Your task to perform on an android device: add a contact in the contacts app Image 0: 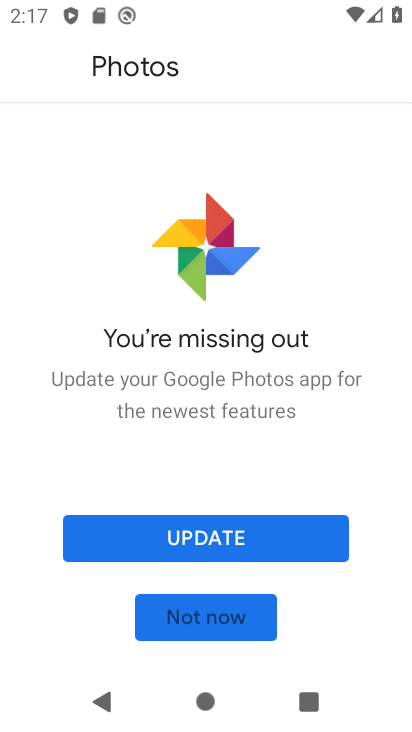
Step 0: press home button
Your task to perform on an android device: add a contact in the contacts app Image 1: 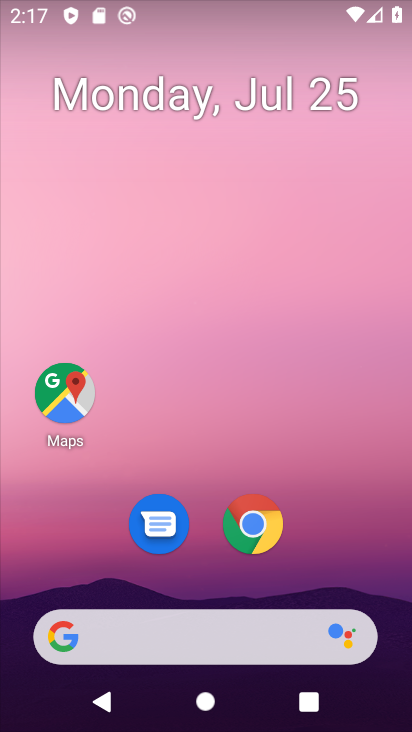
Step 1: drag from (161, 644) to (311, 64)
Your task to perform on an android device: add a contact in the contacts app Image 2: 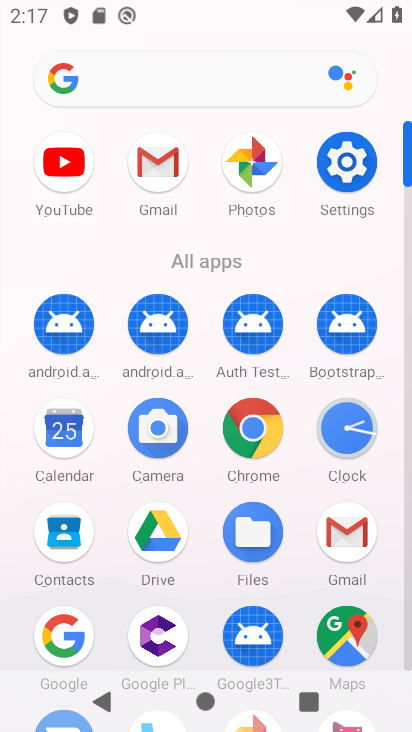
Step 2: drag from (204, 586) to (287, 351)
Your task to perform on an android device: add a contact in the contacts app Image 3: 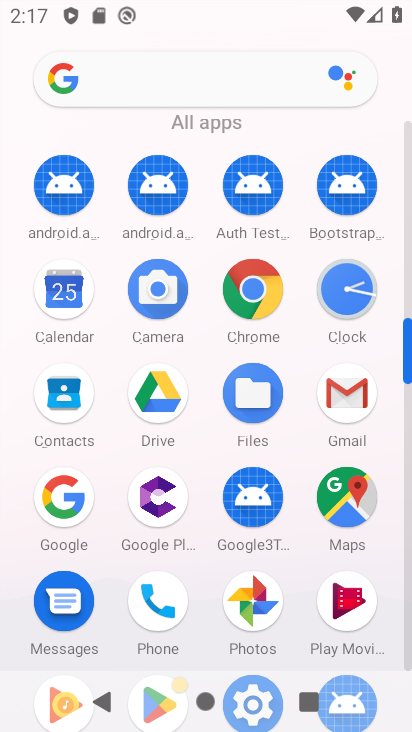
Step 3: click (61, 398)
Your task to perform on an android device: add a contact in the contacts app Image 4: 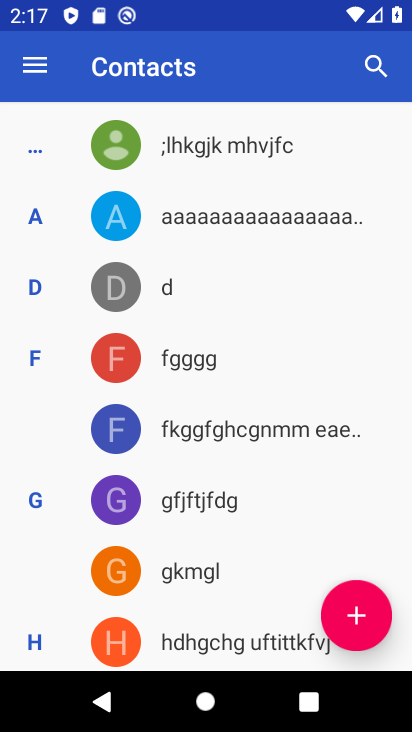
Step 4: click (363, 623)
Your task to perform on an android device: add a contact in the contacts app Image 5: 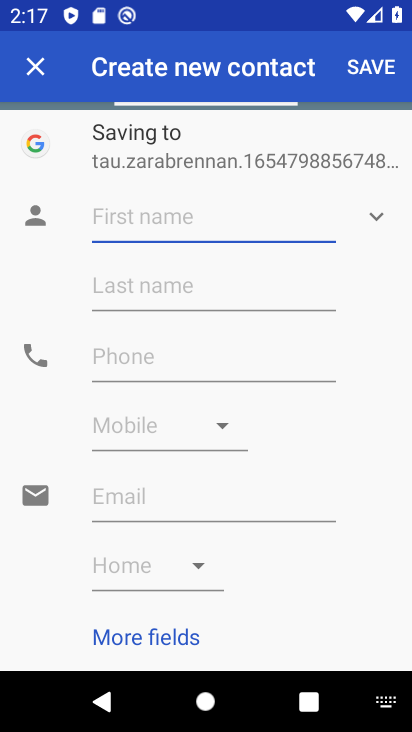
Step 5: type ""
Your task to perform on an android device: add a contact in the contacts app Image 6: 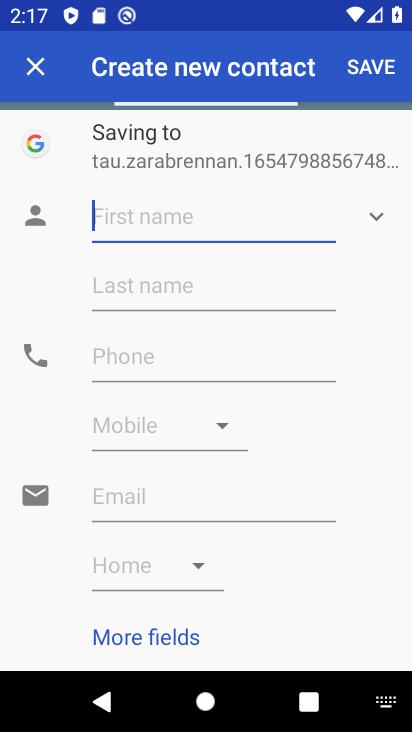
Step 6: type "huendhf"
Your task to perform on an android device: add a contact in the contacts app Image 7: 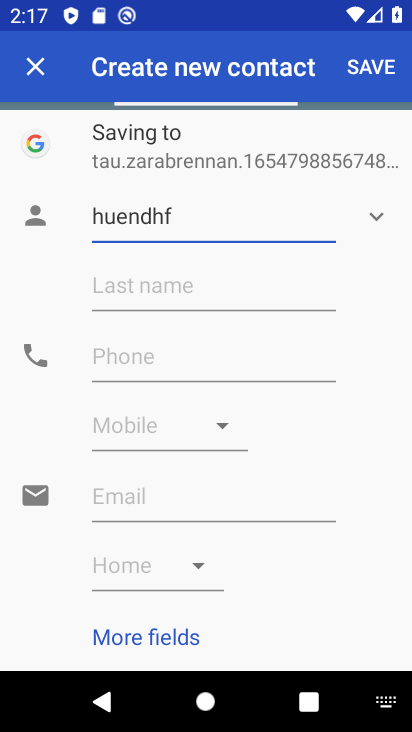
Step 7: click (90, 356)
Your task to perform on an android device: add a contact in the contacts app Image 8: 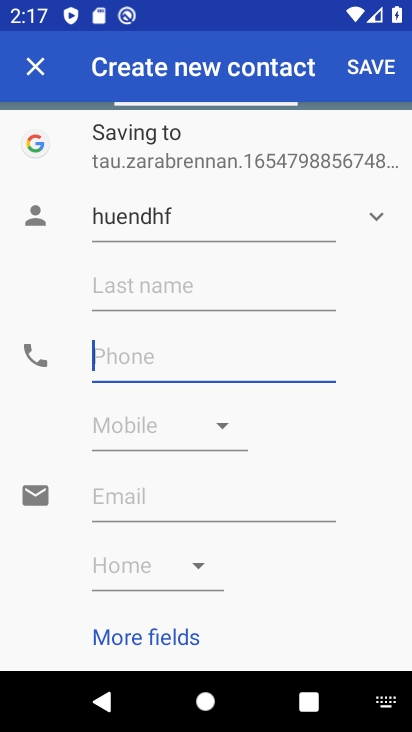
Step 8: type "28474"
Your task to perform on an android device: add a contact in the contacts app Image 9: 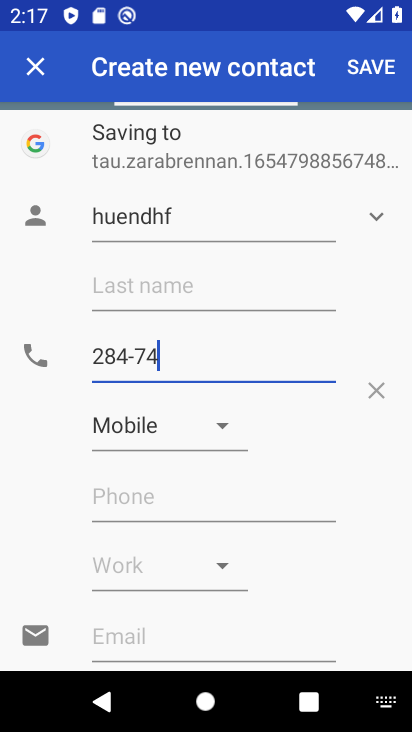
Step 9: click (369, 58)
Your task to perform on an android device: add a contact in the contacts app Image 10: 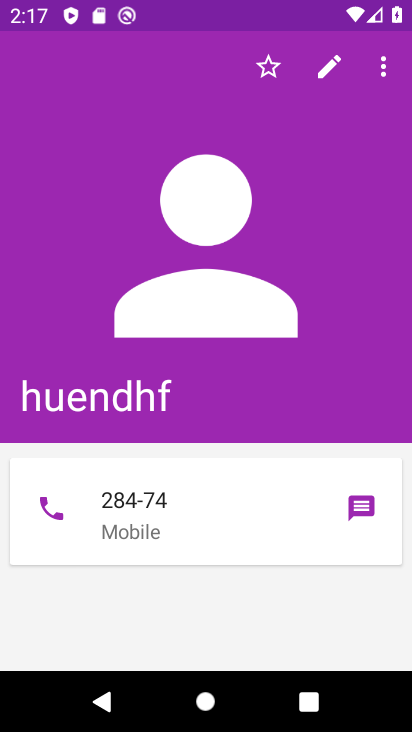
Step 10: task complete